Your task to perform on an android device: turn on data saver in the chrome app Image 0: 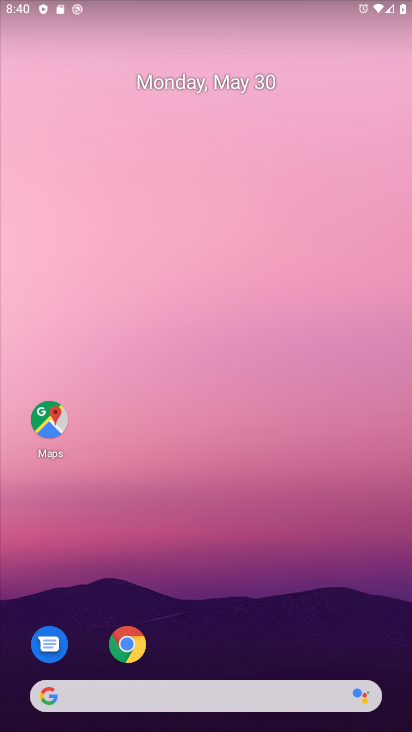
Step 0: click (130, 644)
Your task to perform on an android device: turn on data saver in the chrome app Image 1: 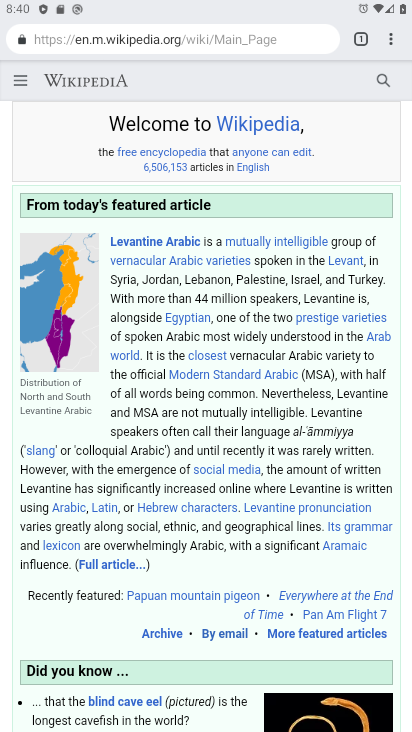
Step 1: click (391, 42)
Your task to perform on an android device: turn on data saver in the chrome app Image 2: 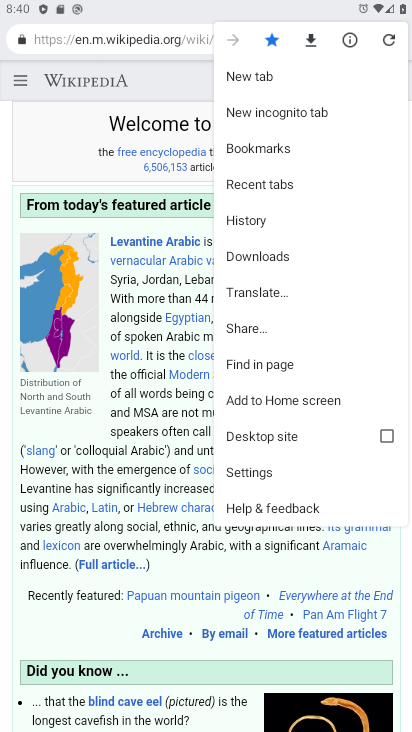
Step 2: click (252, 476)
Your task to perform on an android device: turn on data saver in the chrome app Image 3: 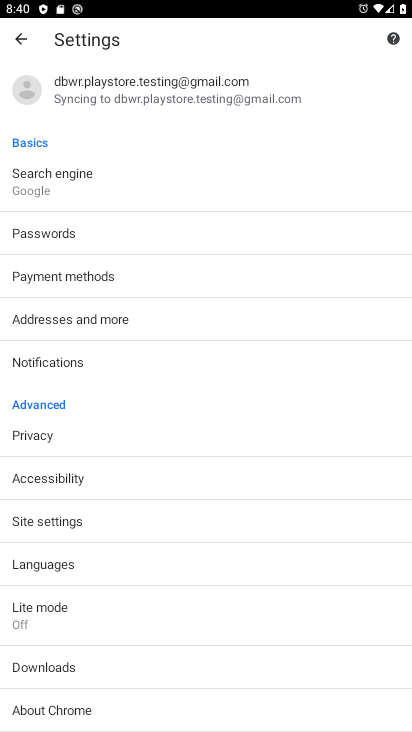
Step 3: click (36, 613)
Your task to perform on an android device: turn on data saver in the chrome app Image 4: 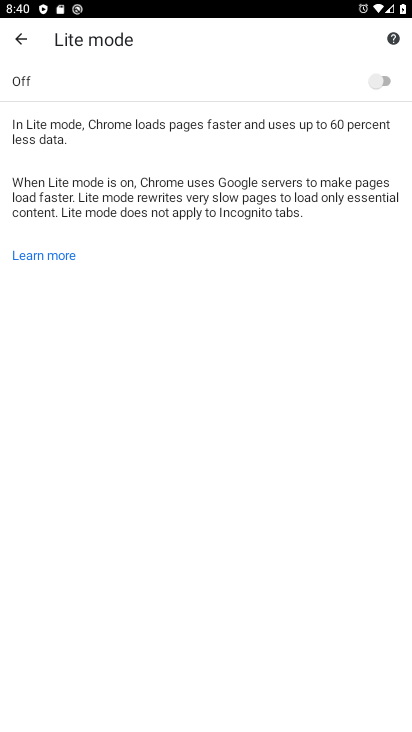
Step 4: click (386, 78)
Your task to perform on an android device: turn on data saver in the chrome app Image 5: 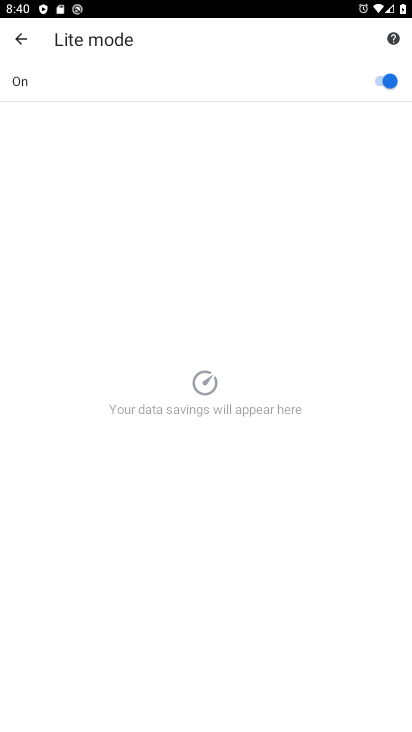
Step 5: task complete